Your task to perform on an android device: change notifications settings Image 0: 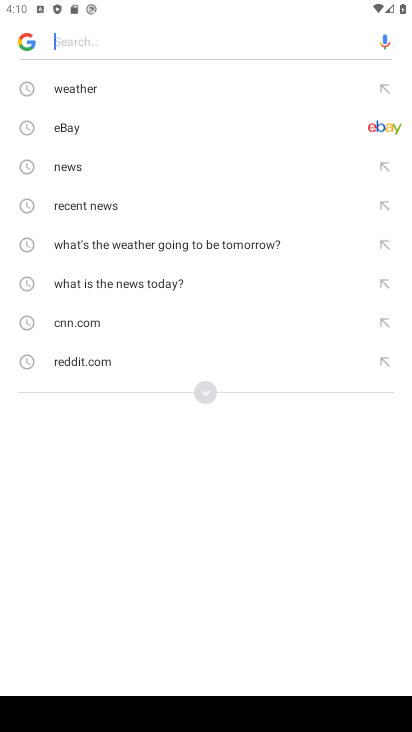
Step 0: press home button
Your task to perform on an android device: change notifications settings Image 1: 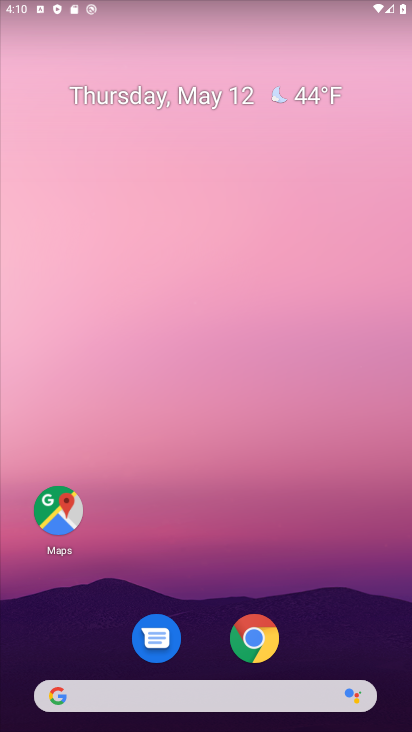
Step 1: drag from (320, 589) to (239, 61)
Your task to perform on an android device: change notifications settings Image 2: 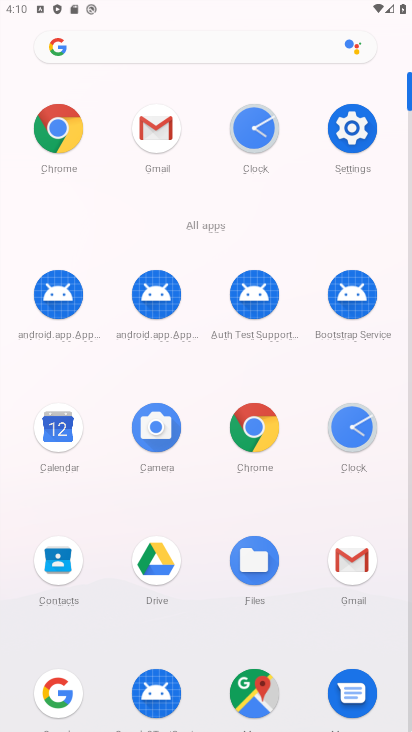
Step 2: click (351, 142)
Your task to perform on an android device: change notifications settings Image 3: 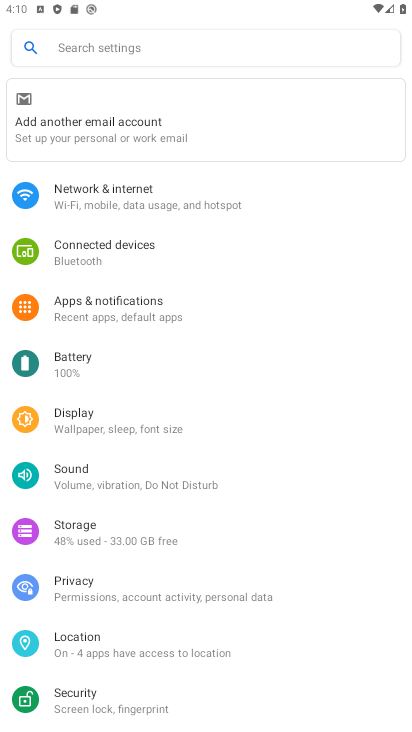
Step 3: click (110, 312)
Your task to perform on an android device: change notifications settings Image 4: 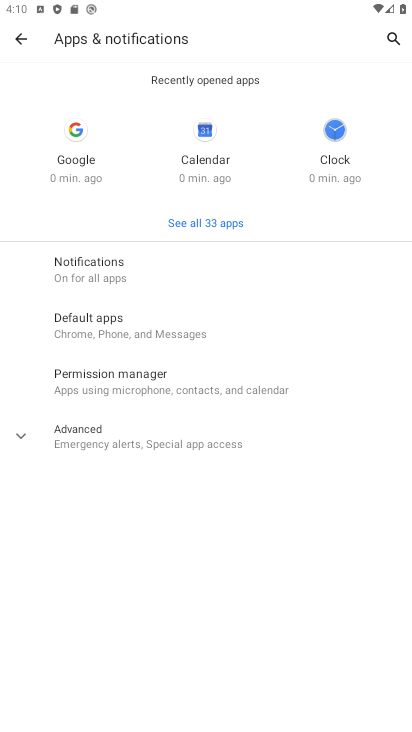
Step 4: click (127, 272)
Your task to perform on an android device: change notifications settings Image 5: 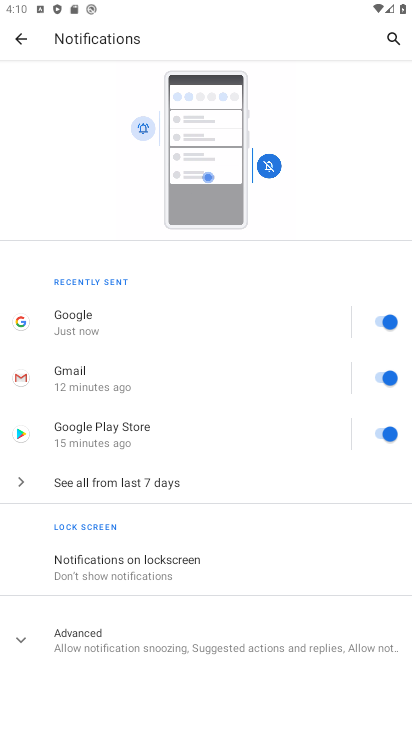
Step 5: click (384, 317)
Your task to perform on an android device: change notifications settings Image 6: 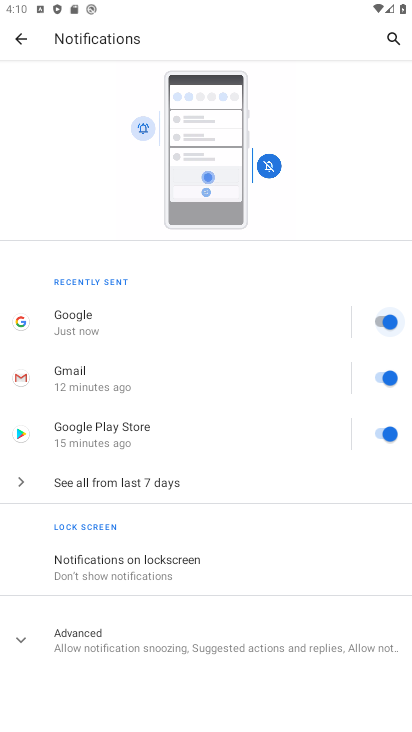
Step 6: click (393, 374)
Your task to perform on an android device: change notifications settings Image 7: 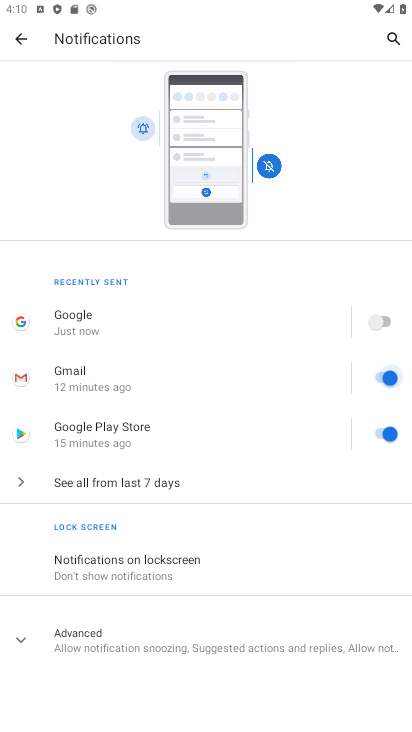
Step 7: click (389, 440)
Your task to perform on an android device: change notifications settings Image 8: 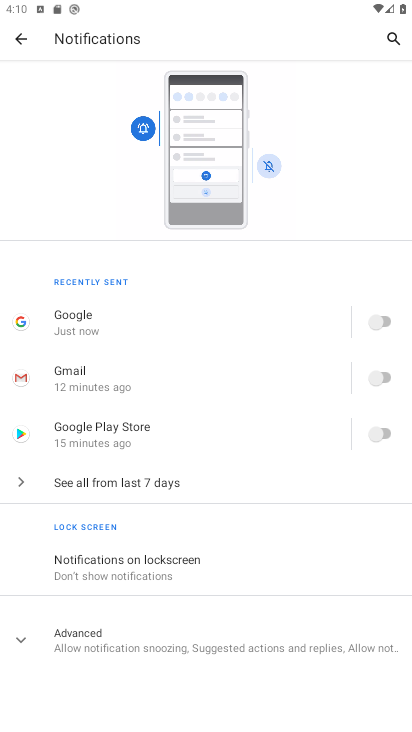
Step 8: task complete